Your task to perform on an android device: Go to settings Image 0: 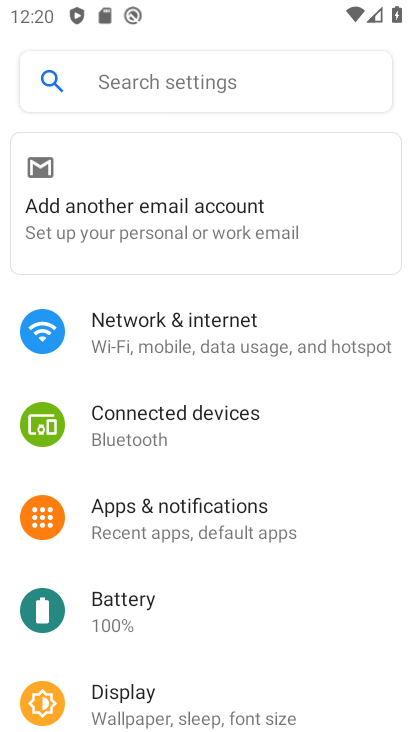
Step 0: drag from (242, 631) to (261, 248)
Your task to perform on an android device: Go to settings Image 1: 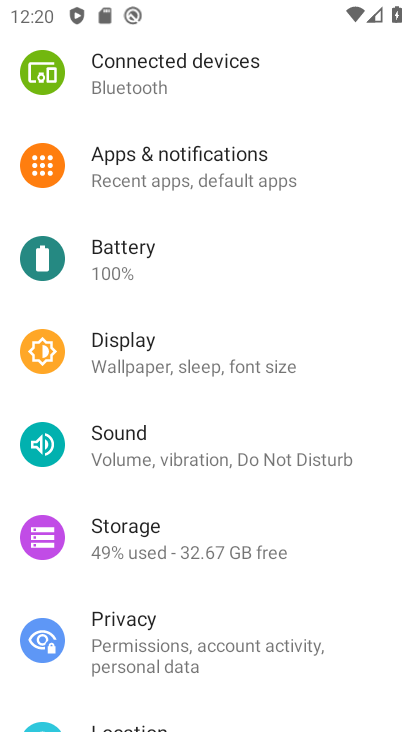
Step 1: task complete